Your task to perform on an android device: Open the phone app and click the voicemail tab. Image 0: 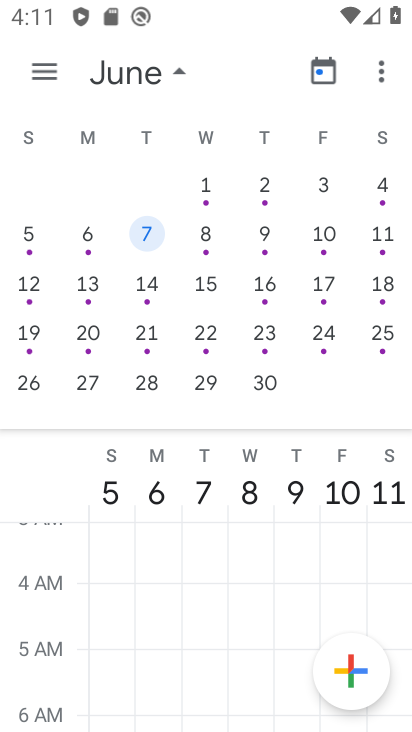
Step 0: press home button
Your task to perform on an android device: Open the phone app and click the voicemail tab. Image 1: 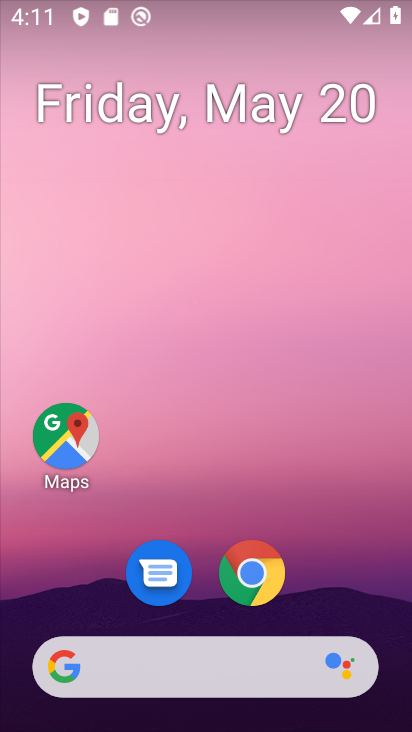
Step 1: drag from (313, 606) to (232, 191)
Your task to perform on an android device: Open the phone app and click the voicemail tab. Image 2: 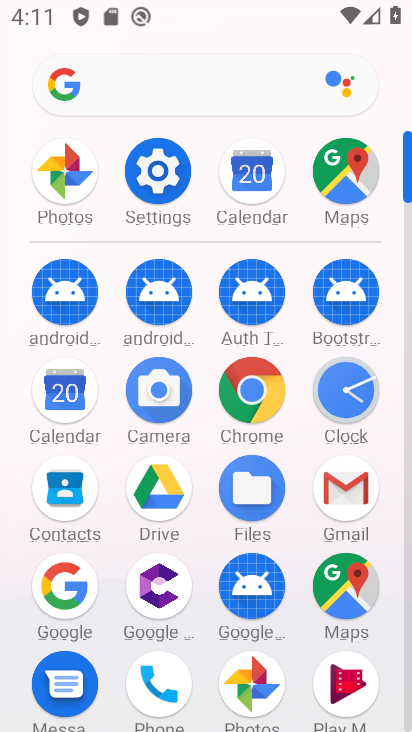
Step 2: click (171, 678)
Your task to perform on an android device: Open the phone app and click the voicemail tab. Image 3: 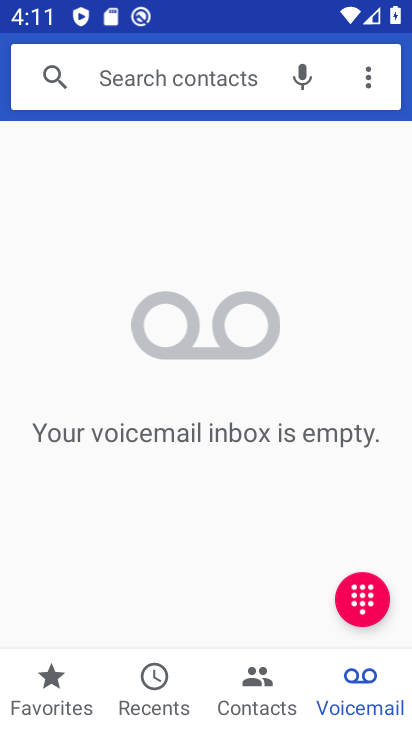
Step 3: task complete